Your task to perform on an android device: Go to Google maps Image 0: 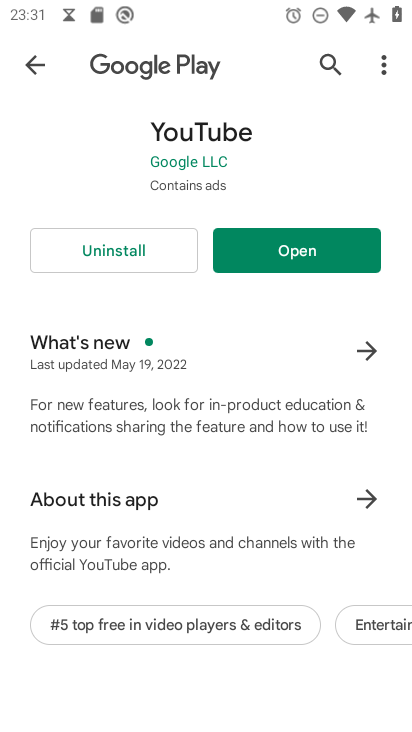
Step 0: press home button
Your task to perform on an android device: Go to Google maps Image 1: 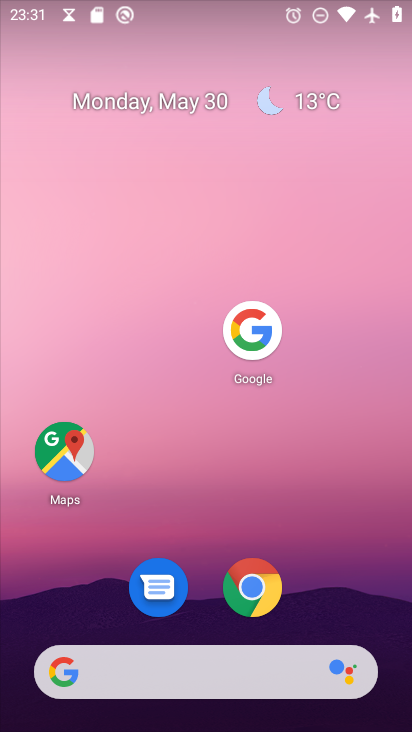
Step 1: click (55, 442)
Your task to perform on an android device: Go to Google maps Image 2: 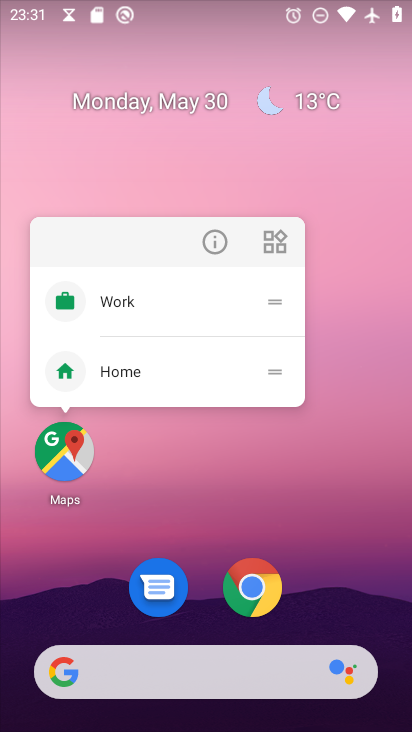
Step 2: click (67, 452)
Your task to perform on an android device: Go to Google maps Image 3: 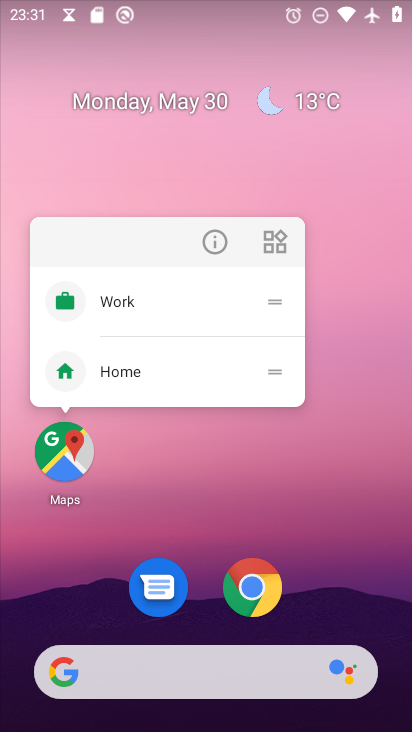
Step 3: click (59, 461)
Your task to perform on an android device: Go to Google maps Image 4: 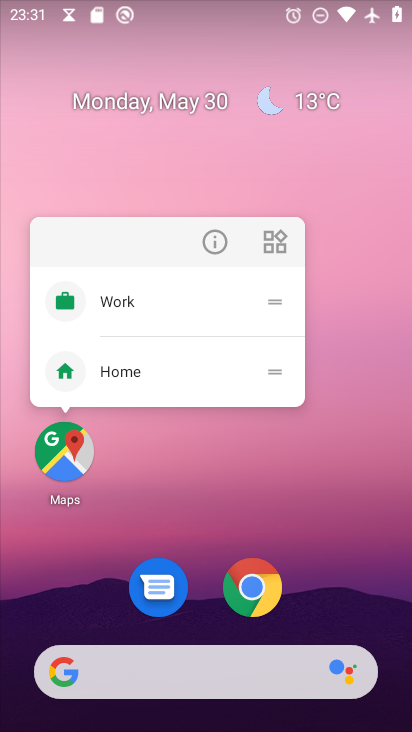
Step 4: click (59, 461)
Your task to perform on an android device: Go to Google maps Image 5: 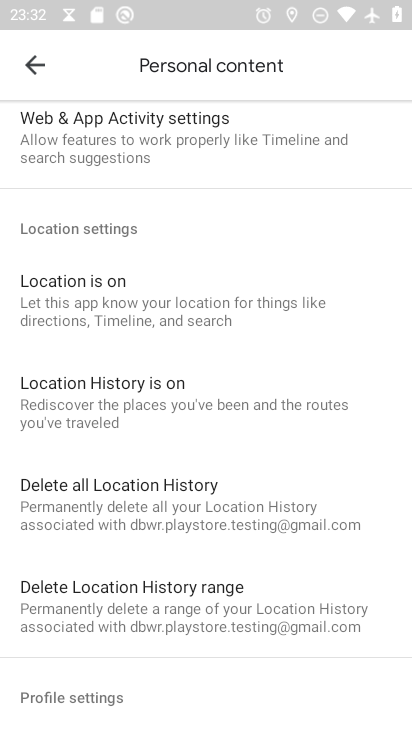
Step 5: click (37, 60)
Your task to perform on an android device: Go to Google maps Image 6: 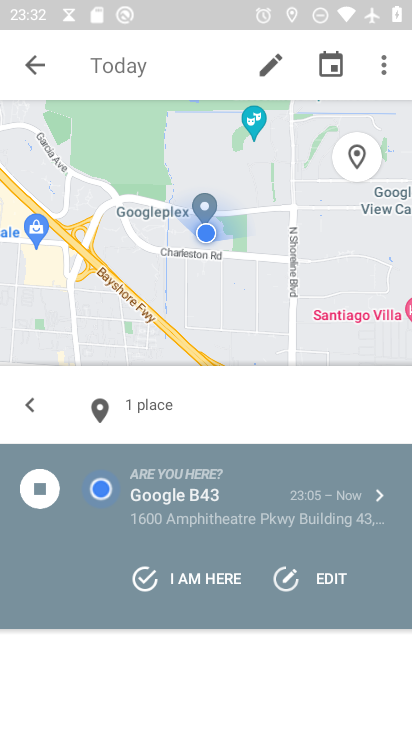
Step 6: task complete